Your task to perform on an android device: Open settings on Google Maps Image 0: 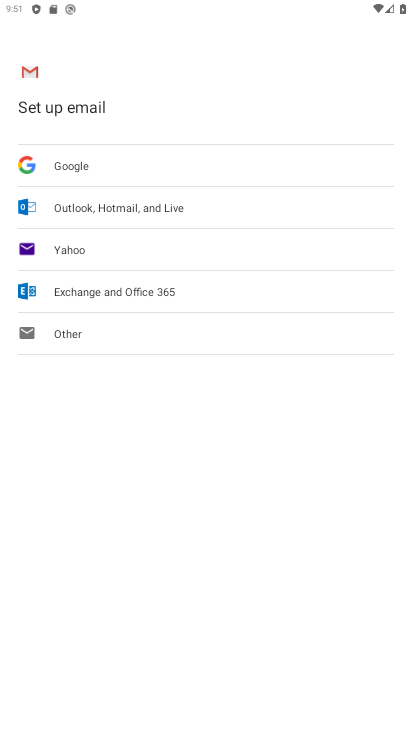
Step 0: press home button
Your task to perform on an android device: Open settings on Google Maps Image 1: 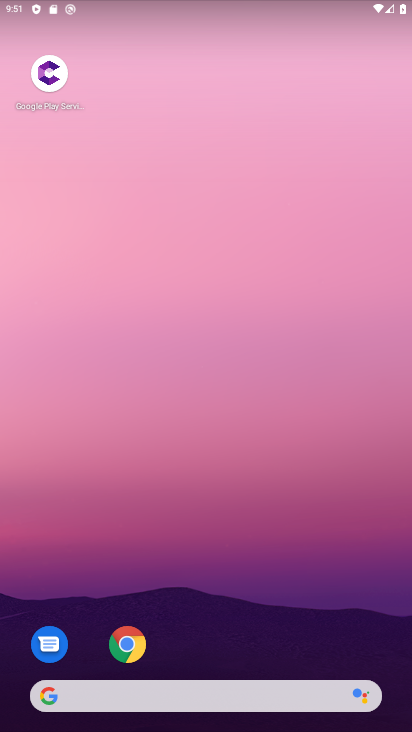
Step 1: drag from (212, 602) to (217, 193)
Your task to perform on an android device: Open settings on Google Maps Image 2: 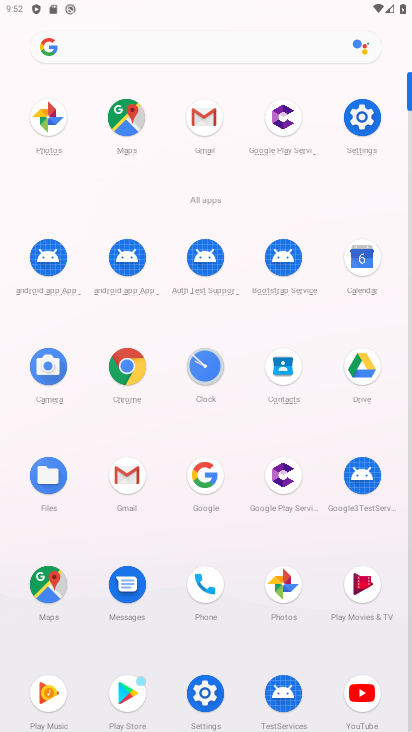
Step 2: click (38, 584)
Your task to perform on an android device: Open settings on Google Maps Image 3: 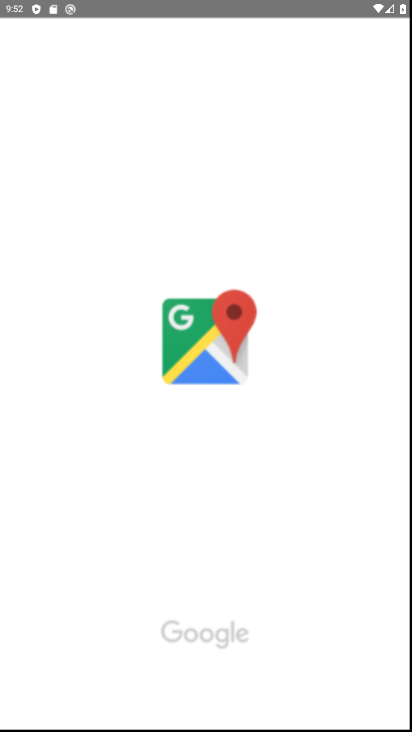
Step 3: task complete